Your task to perform on an android device: Show me popular games on the Play Store Image 0: 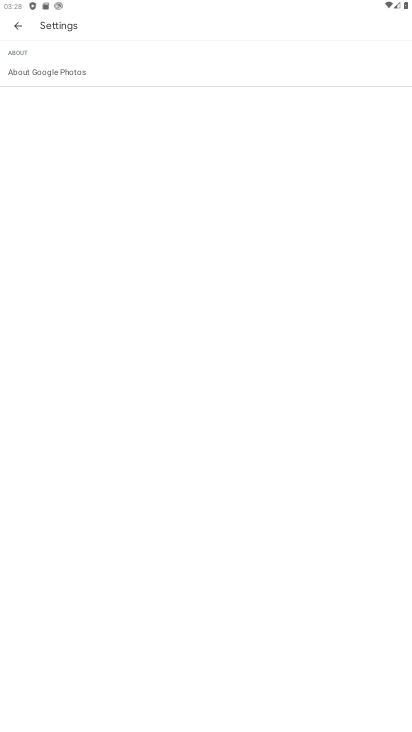
Step 0: press home button
Your task to perform on an android device: Show me popular games on the Play Store Image 1: 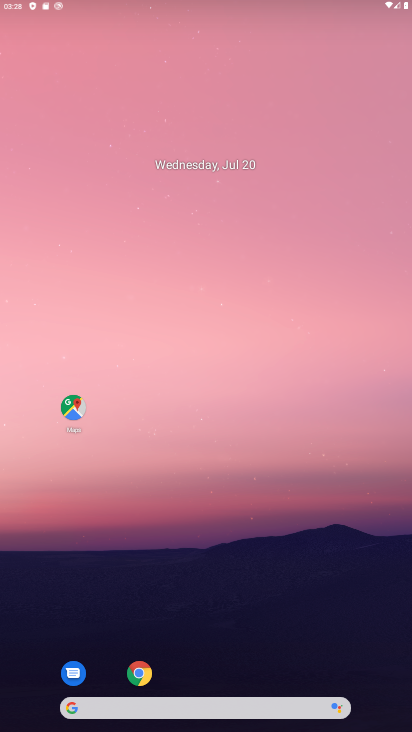
Step 1: drag from (183, 666) to (173, 196)
Your task to perform on an android device: Show me popular games on the Play Store Image 2: 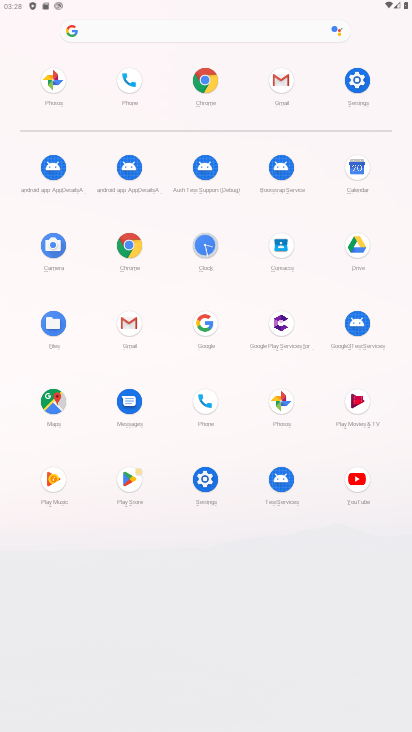
Step 2: click (134, 478)
Your task to perform on an android device: Show me popular games on the Play Store Image 3: 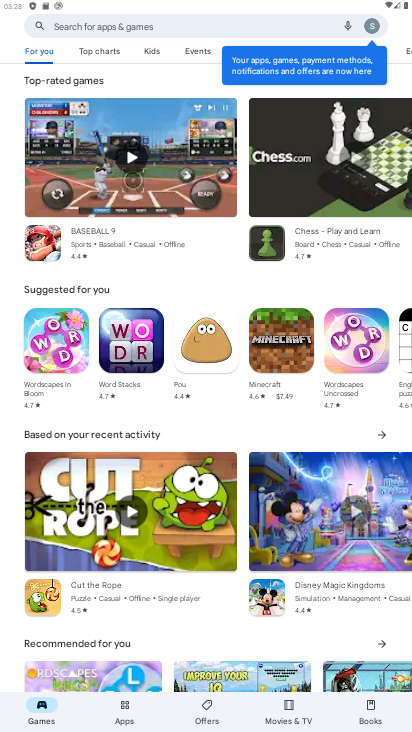
Step 3: click (132, 698)
Your task to perform on an android device: Show me popular games on the Play Store Image 4: 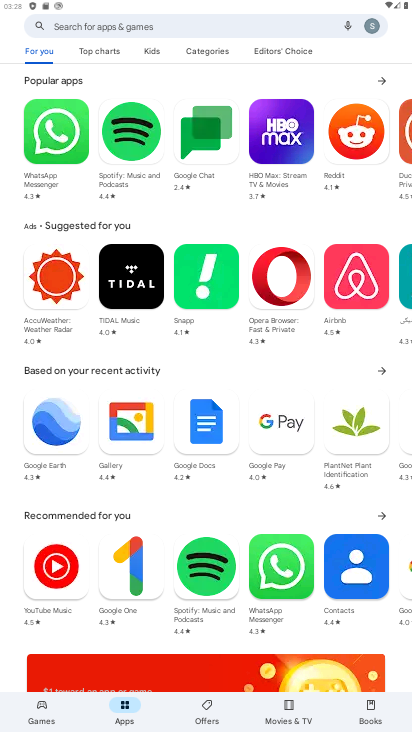
Step 4: click (51, 702)
Your task to perform on an android device: Show me popular games on the Play Store Image 5: 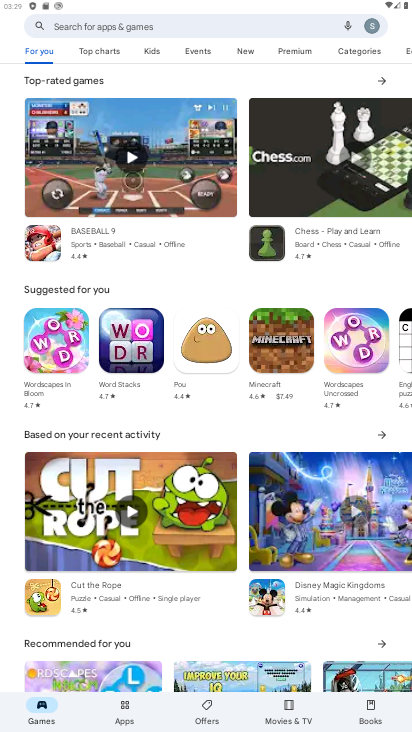
Step 5: task complete